Your task to perform on an android device: Clear all items from cart on newegg. Image 0: 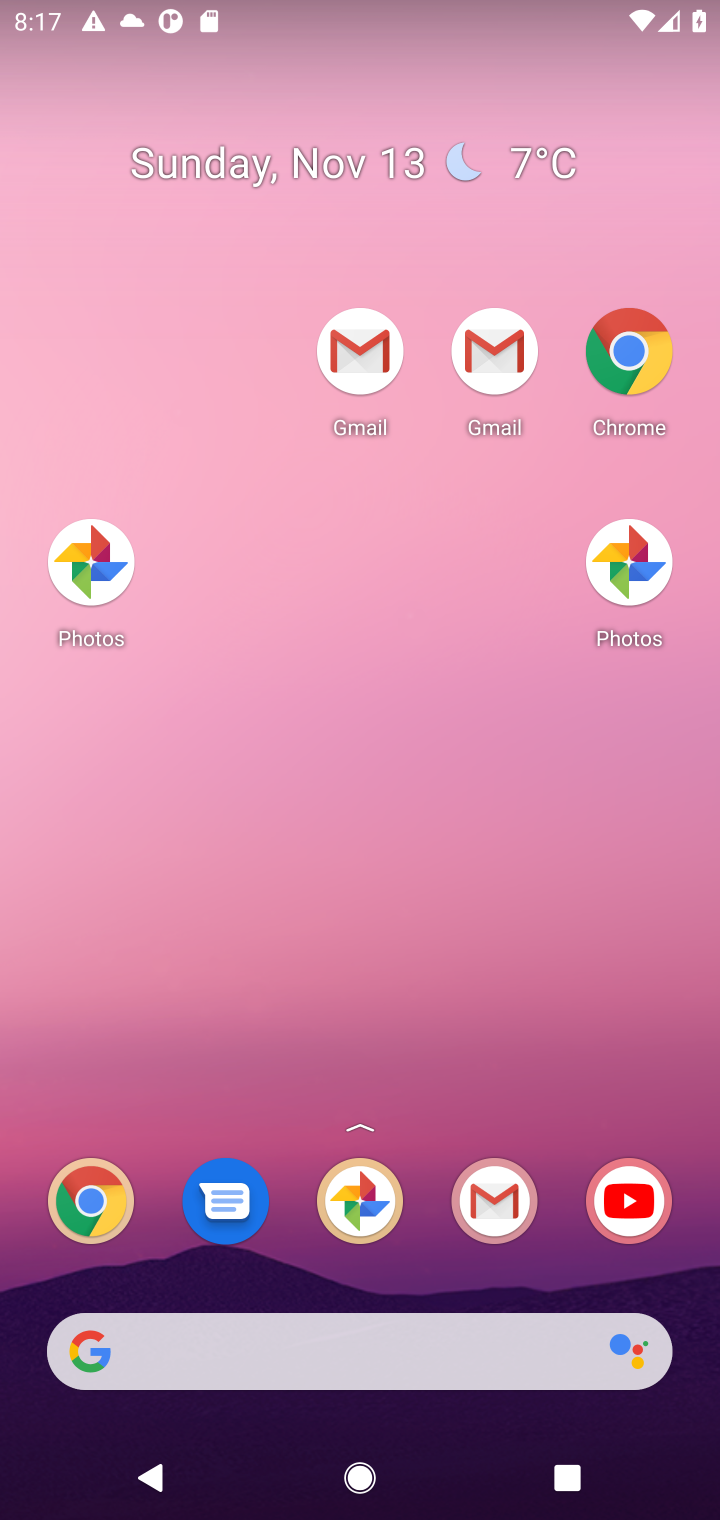
Step 0: drag from (420, 1280) to (243, 21)
Your task to perform on an android device: Clear all items from cart on newegg. Image 1: 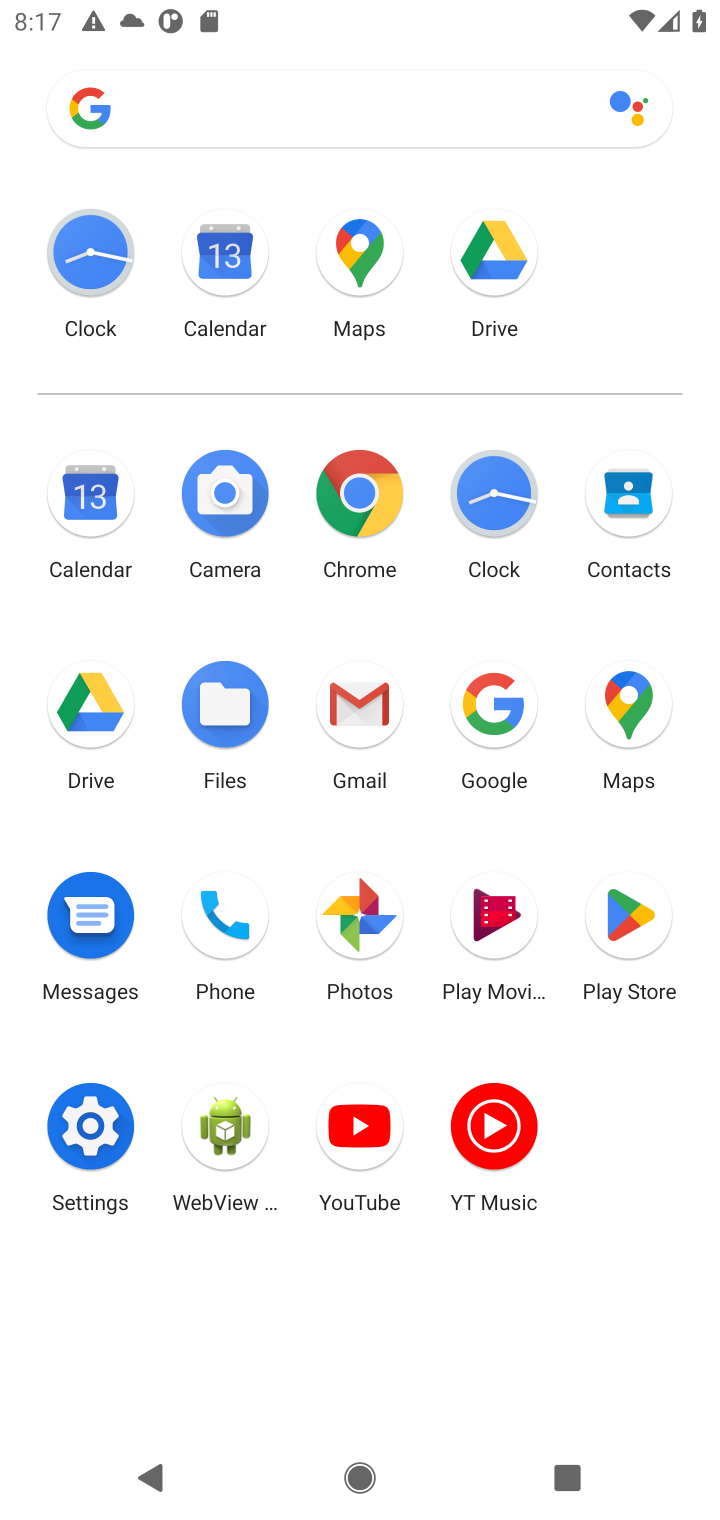
Step 1: click (351, 485)
Your task to perform on an android device: Clear all items from cart on newegg. Image 2: 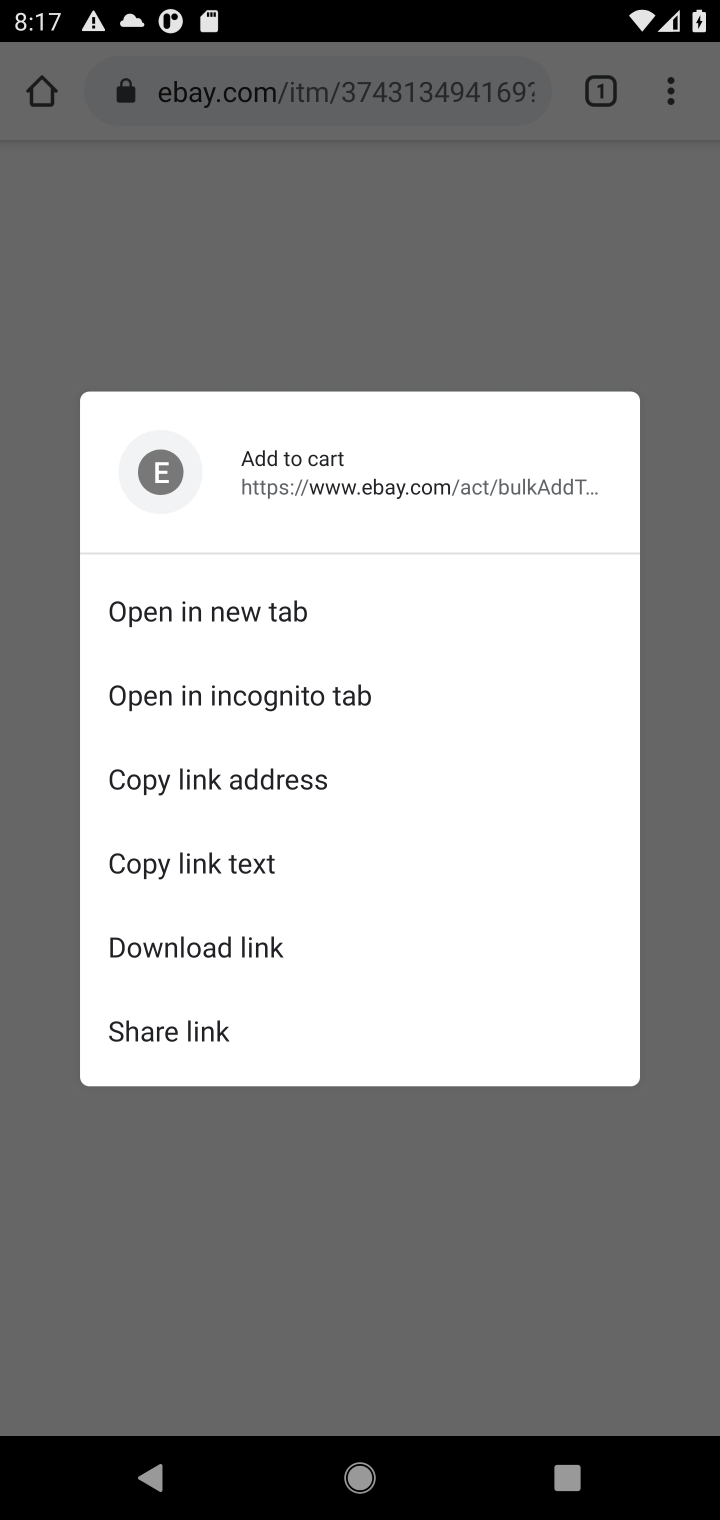
Step 2: click (516, 224)
Your task to perform on an android device: Clear all items from cart on newegg. Image 3: 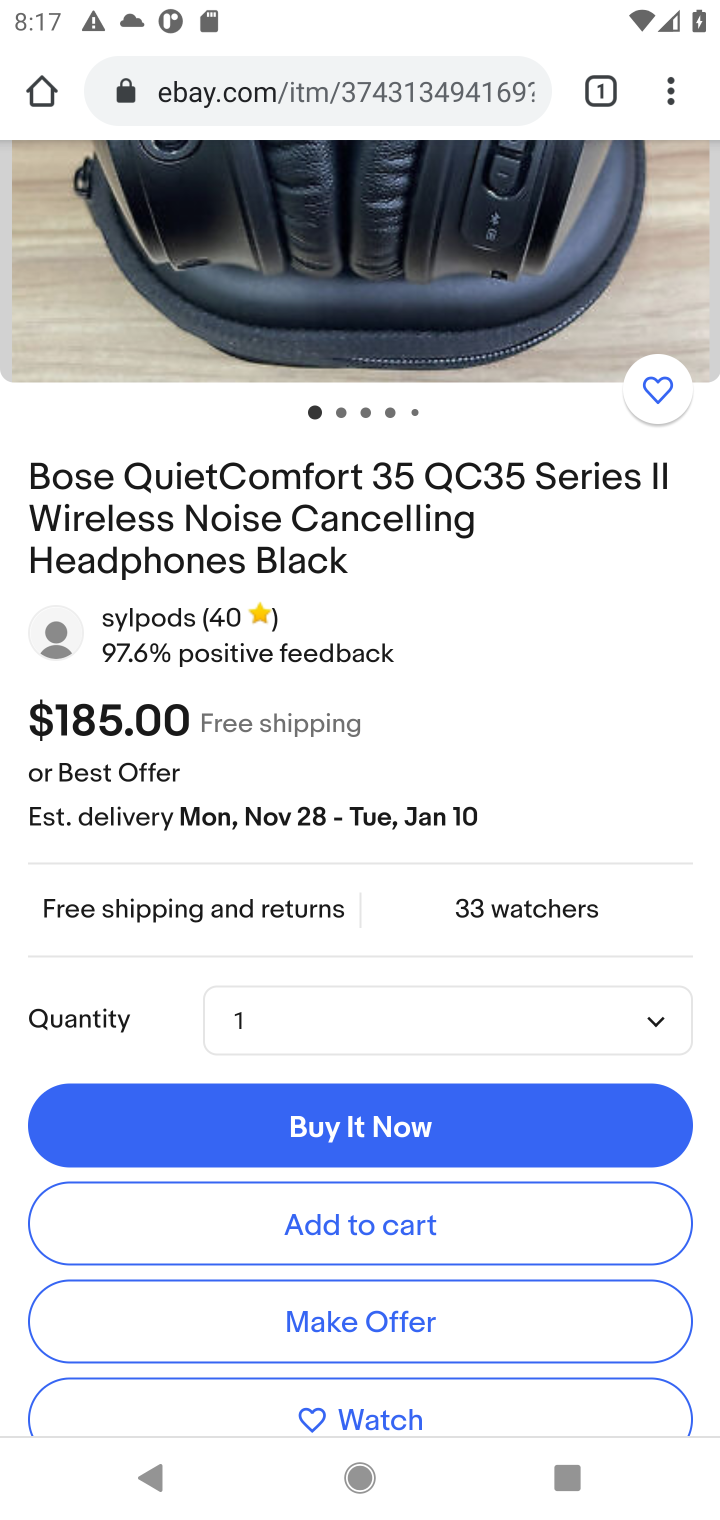
Step 3: click (382, 86)
Your task to perform on an android device: Clear all items from cart on newegg. Image 4: 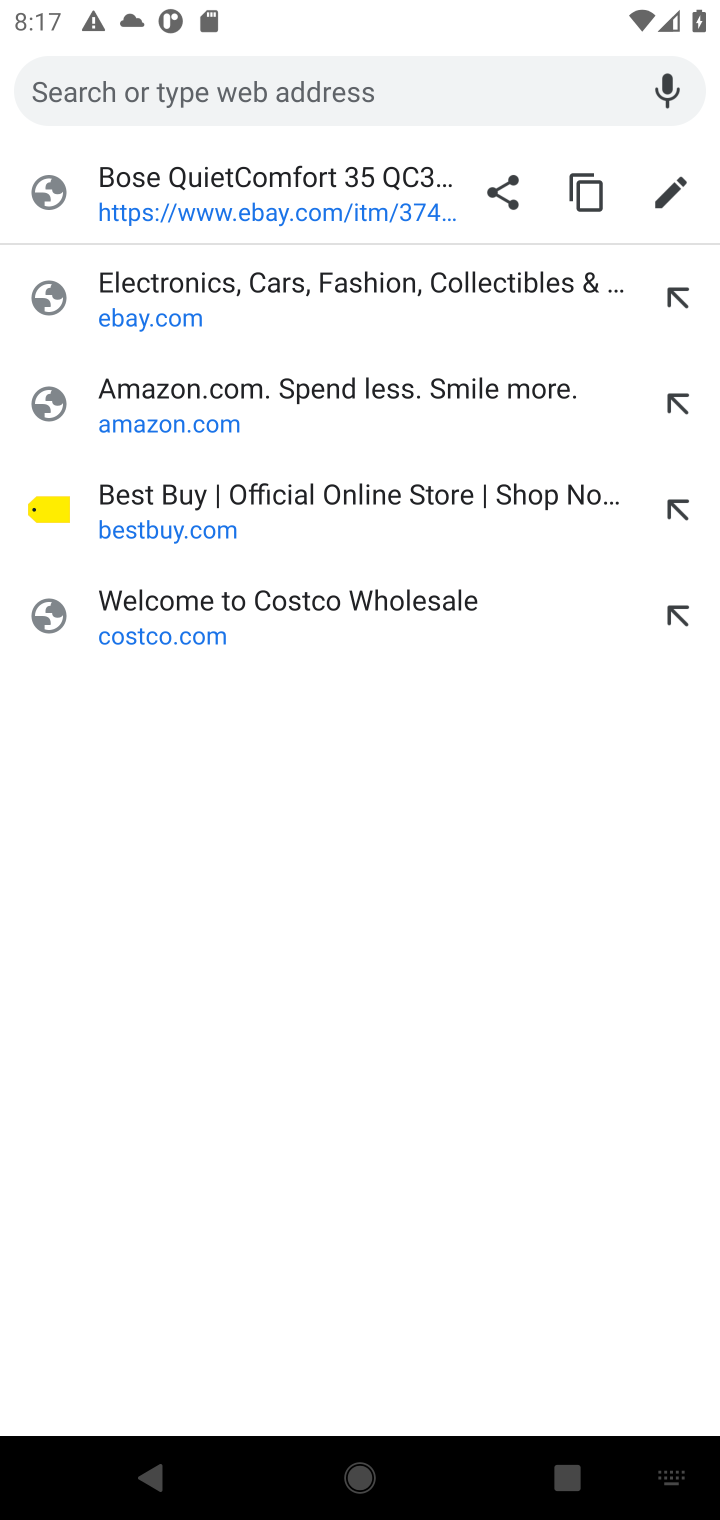
Step 4: type "newegg.com"
Your task to perform on an android device: Clear all items from cart on newegg. Image 5: 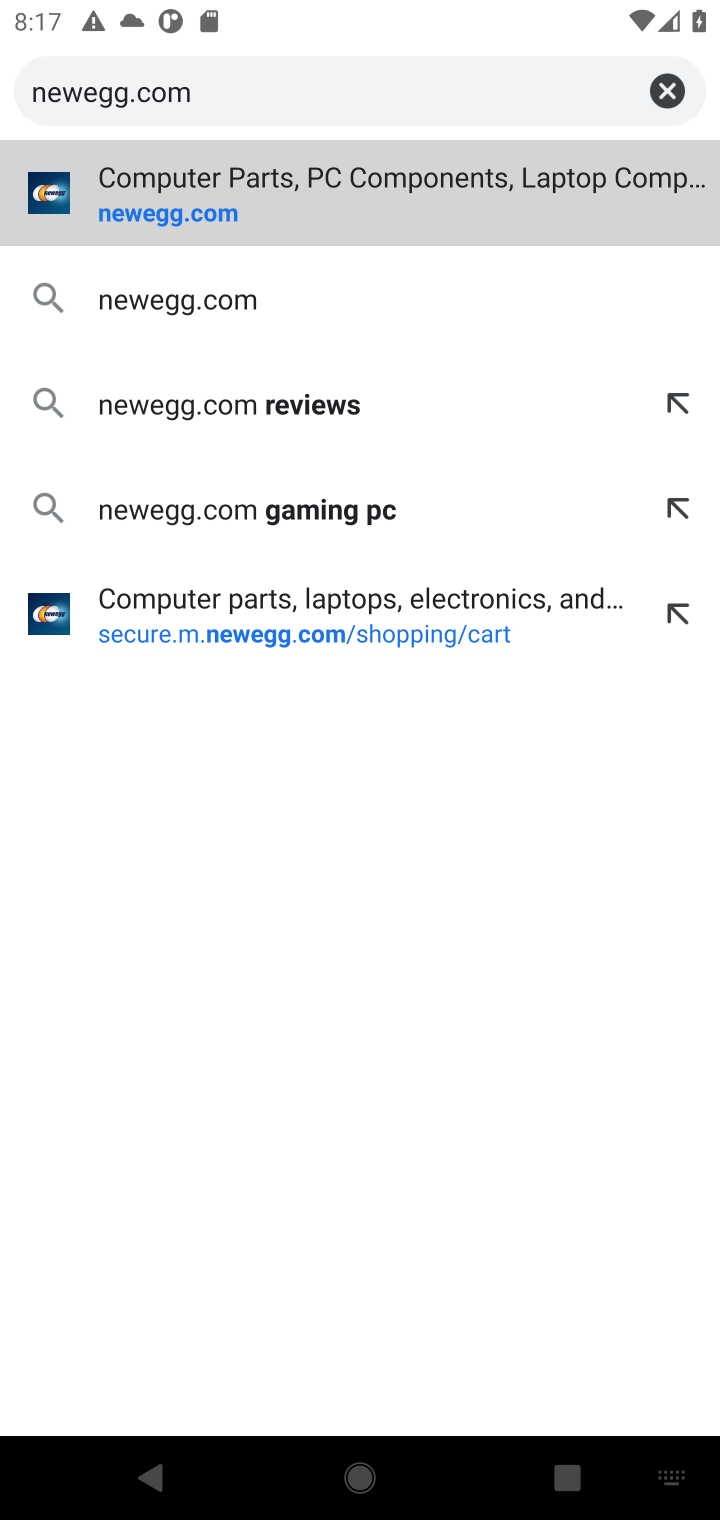
Step 5: press enter
Your task to perform on an android device: Clear all items from cart on newegg. Image 6: 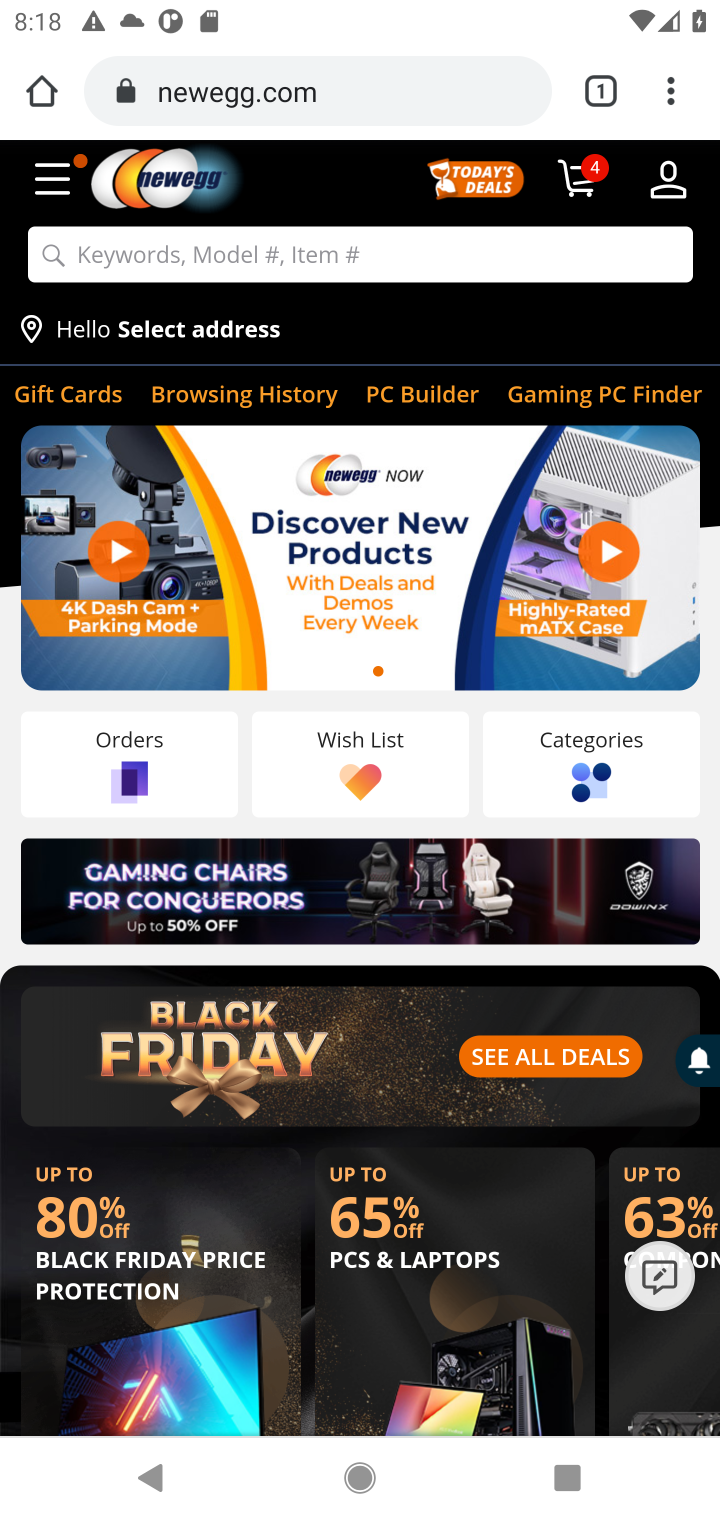
Step 6: click (592, 183)
Your task to perform on an android device: Clear all items from cart on newegg. Image 7: 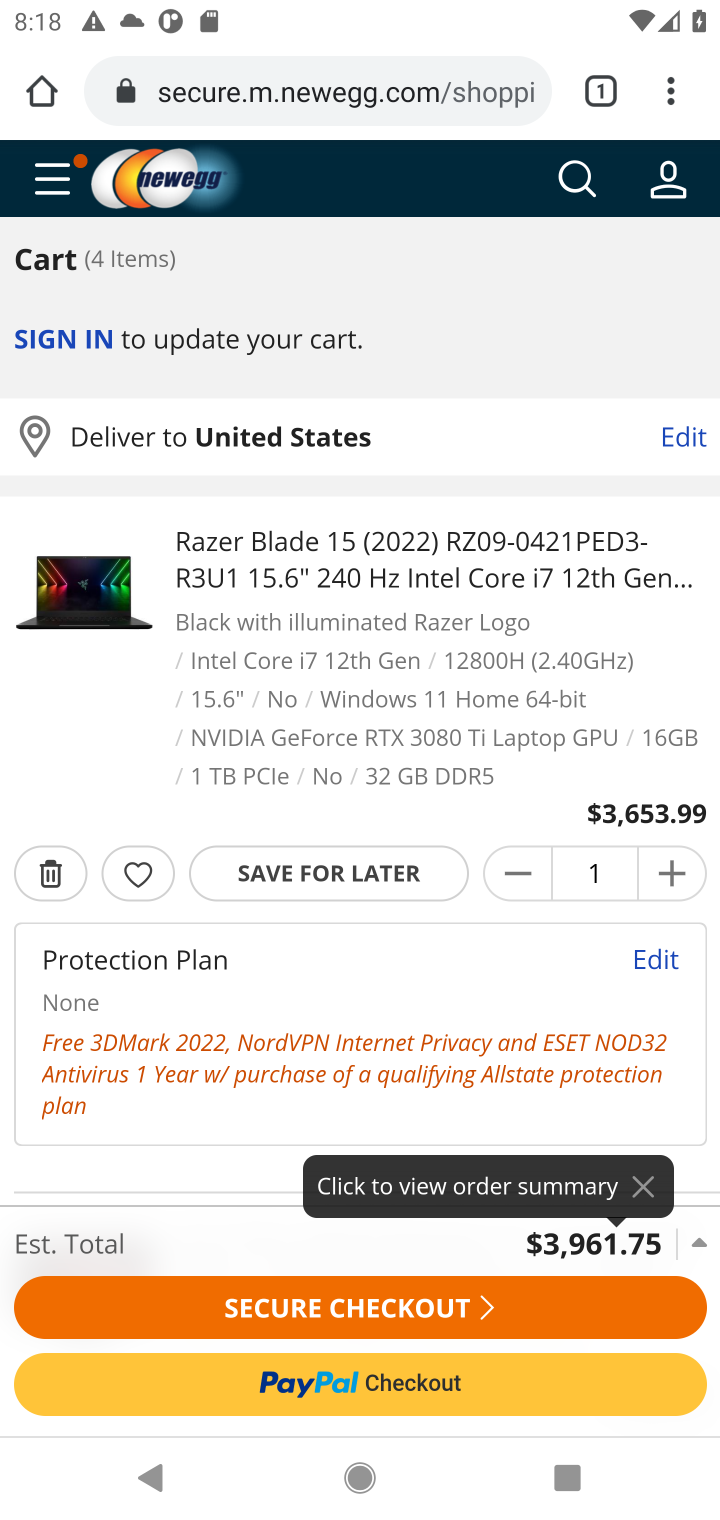
Step 7: click (48, 882)
Your task to perform on an android device: Clear all items from cart on newegg. Image 8: 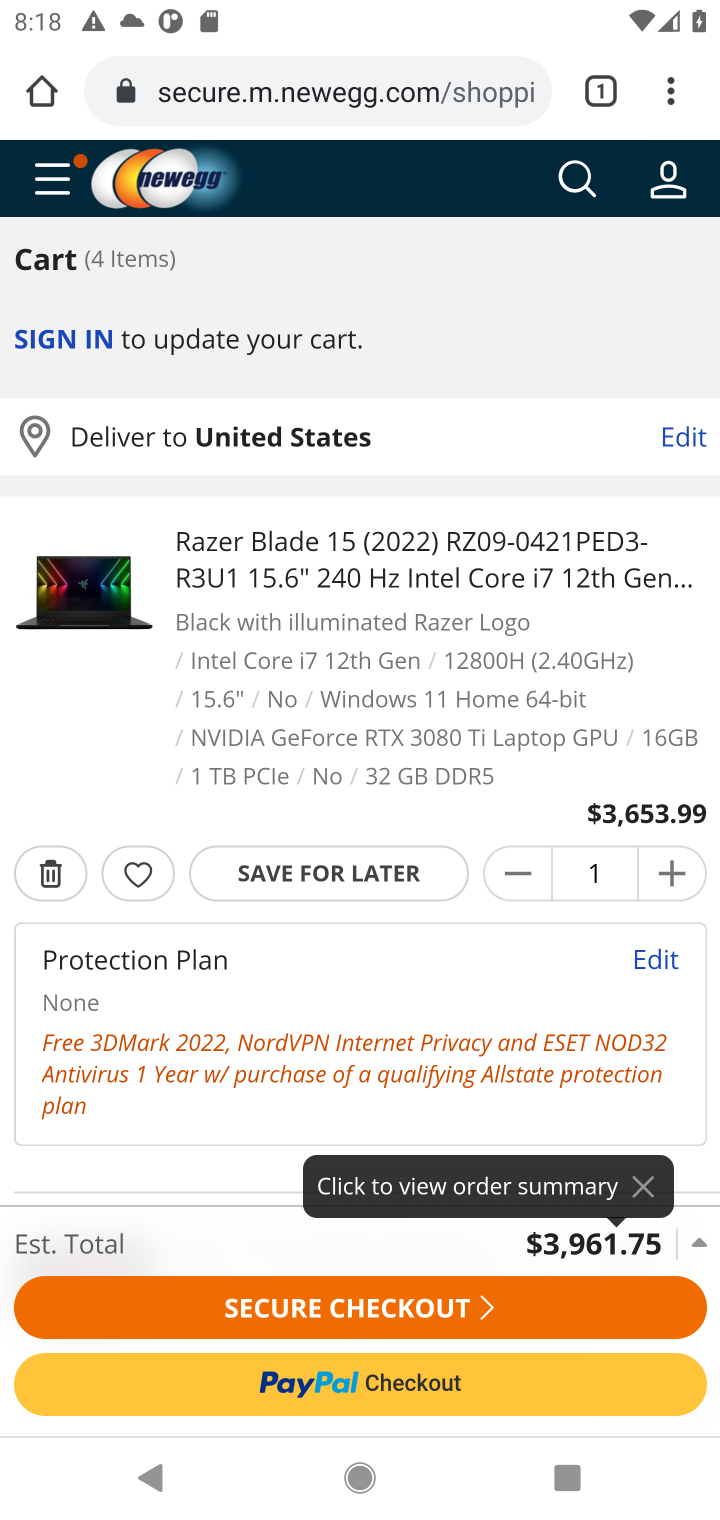
Step 8: click (52, 880)
Your task to perform on an android device: Clear all items from cart on newegg. Image 9: 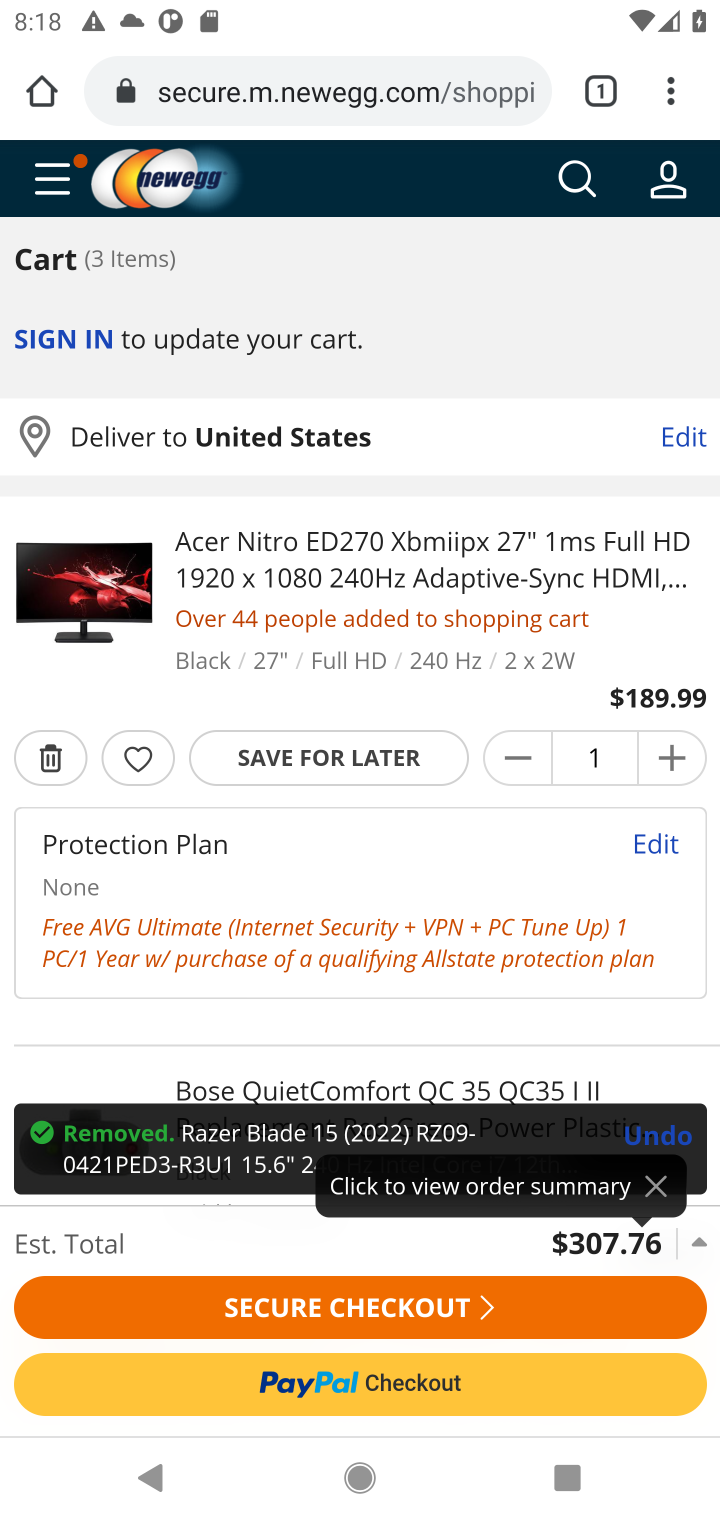
Step 9: click (50, 769)
Your task to perform on an android device: Clear all items from cart on newegg. Image 10: 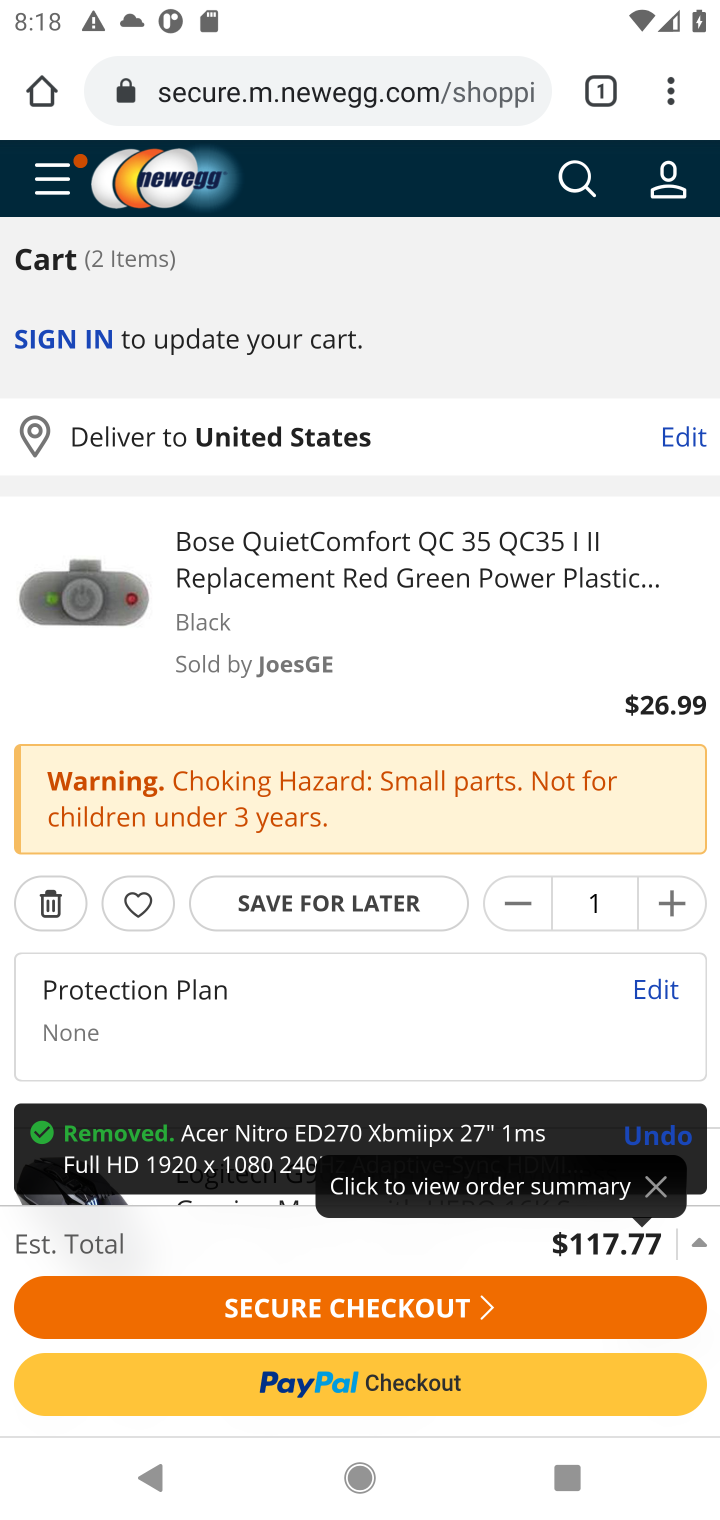
Step 10: click (66, 896)
Your task to perform on an android device: Clear all items from cart on newegg. Image 11: 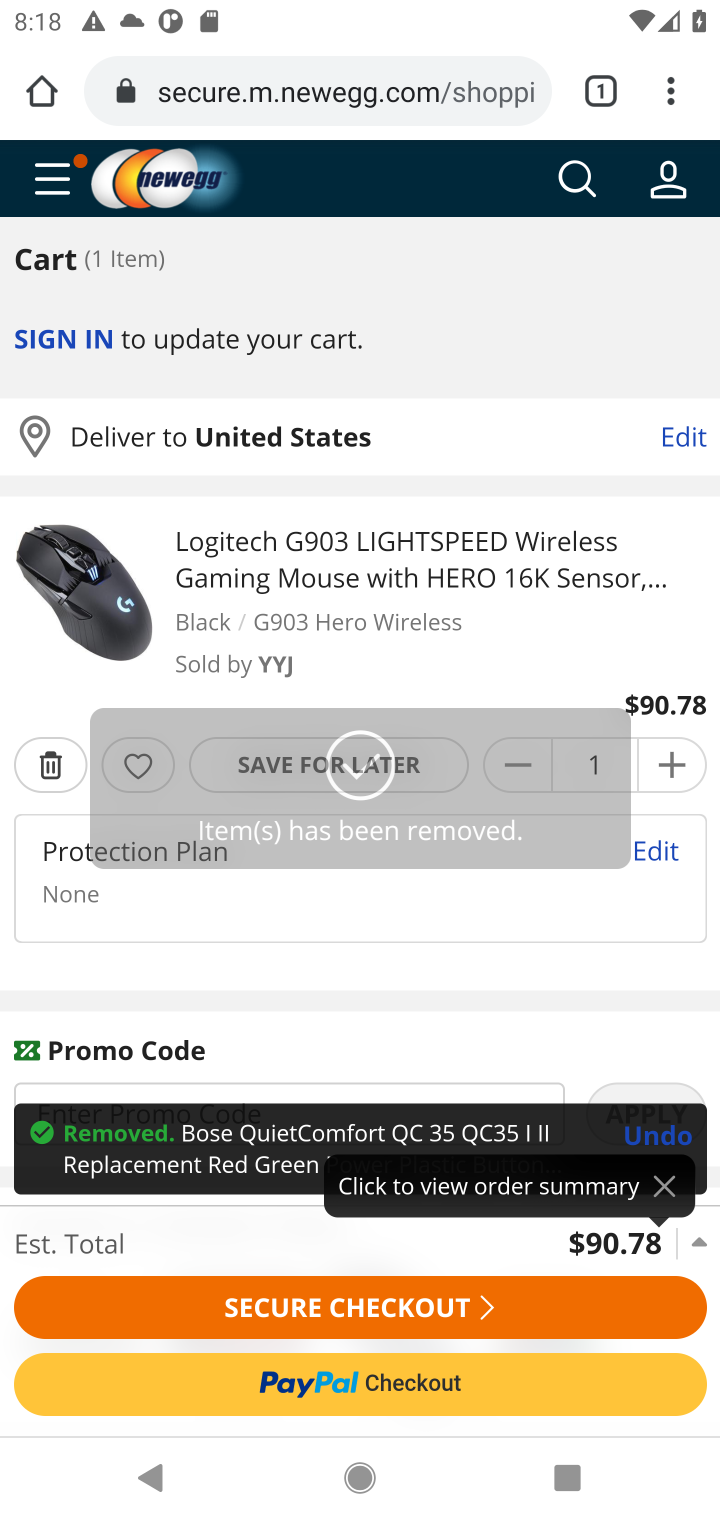
Step 11: click (43, 782)
Your task to perform on an android device: Clear all items from cart on newegg. Image 12: 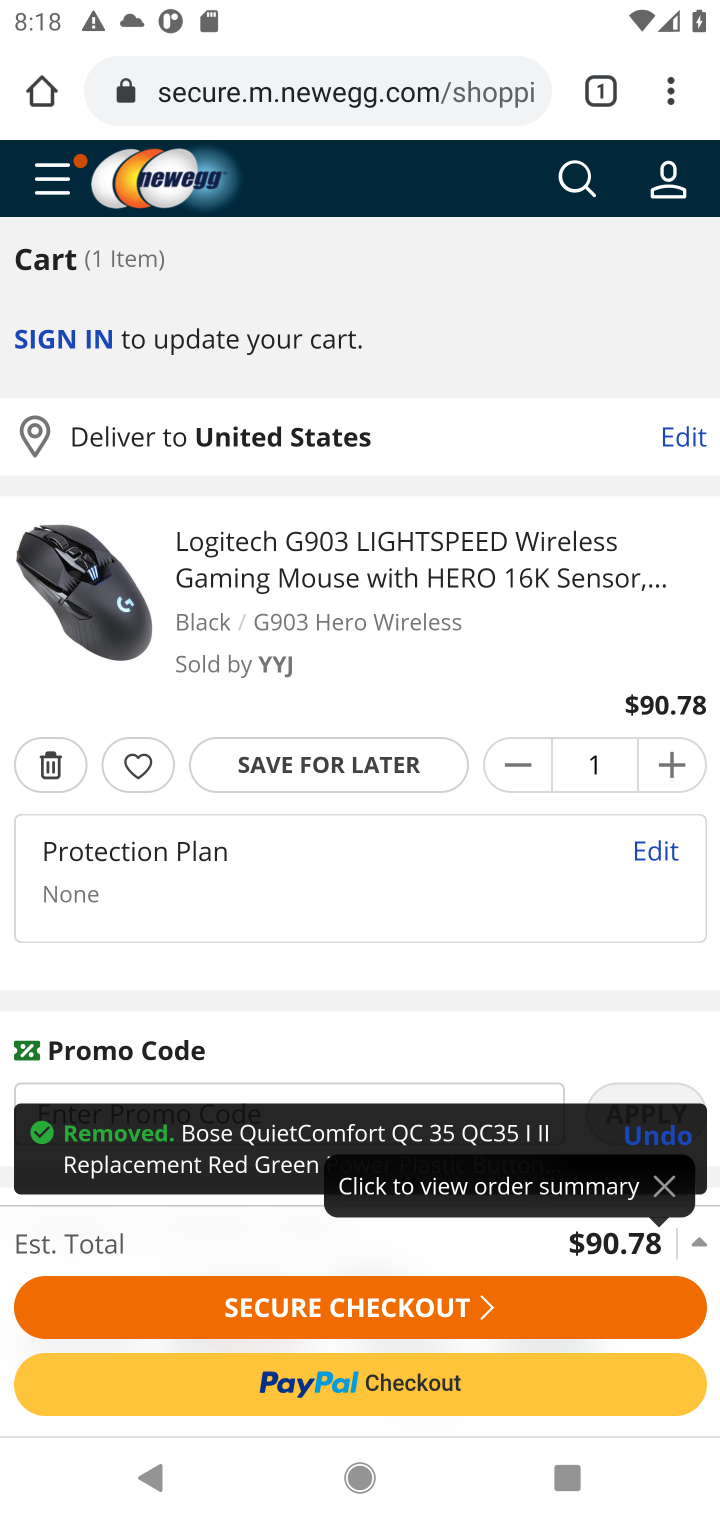
Step 12: click (61, 764)
Your task to perform on an android device: Clear all items from cart on newegg. Image 13: 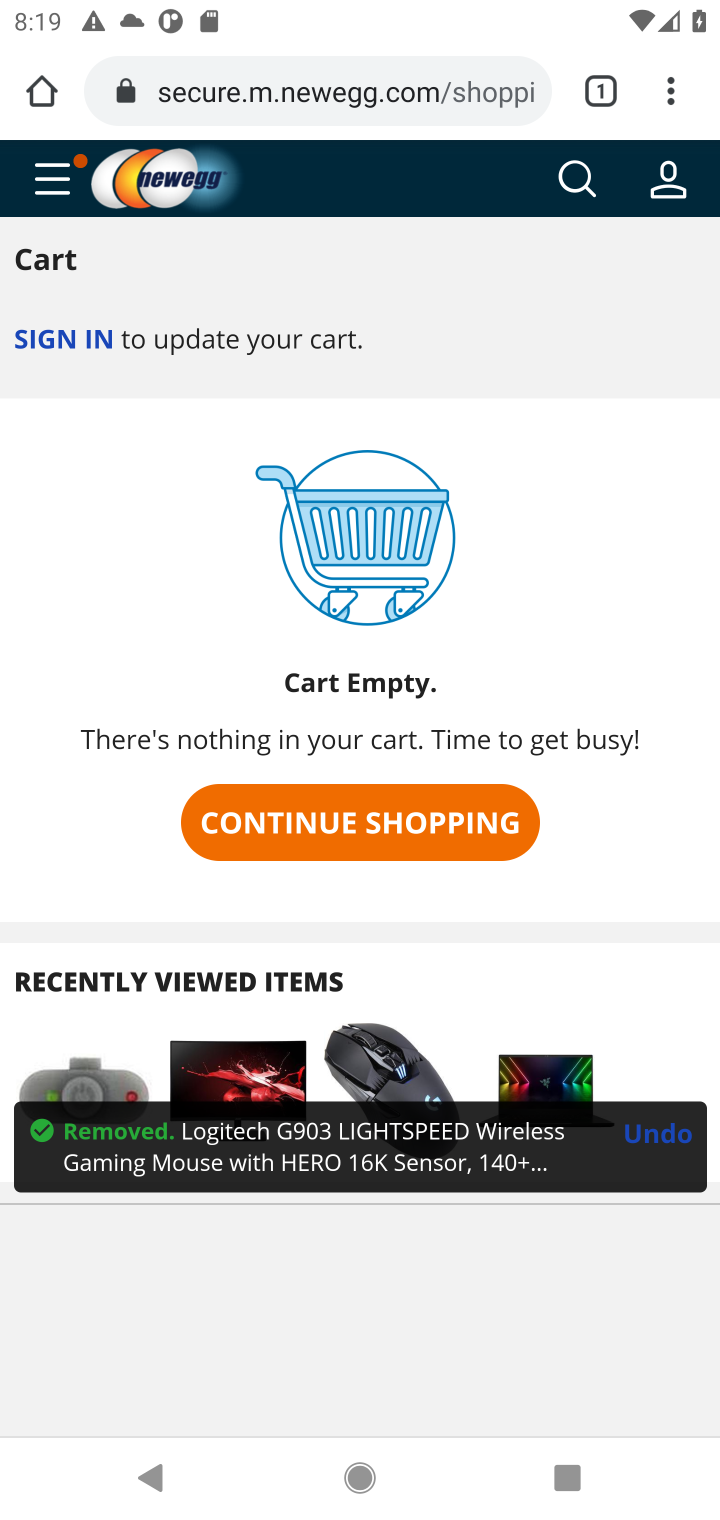
Step 13: task complete